Your task to perform on an android device: Go to CNN.com Image 0: 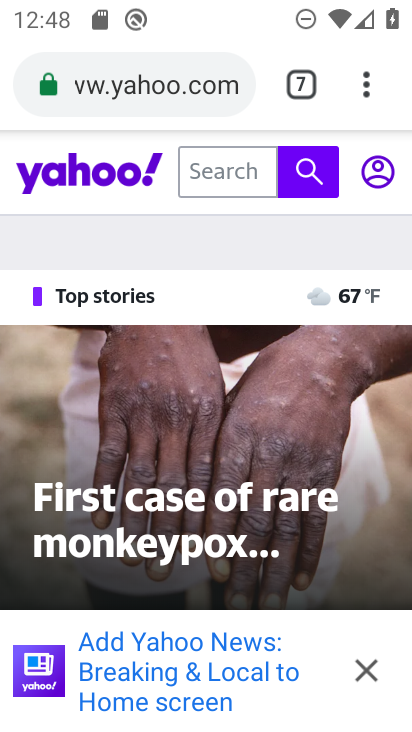
Step 0: click (299, 95)
Your task to perform on an android device: Go to CNN.com Image 1: 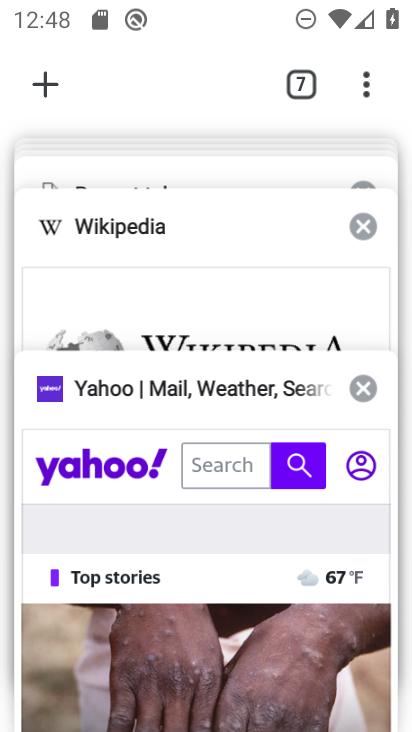
Step 1: click (43, 74)
Your task to perform on an android device: Go to CNN.com Image 2: 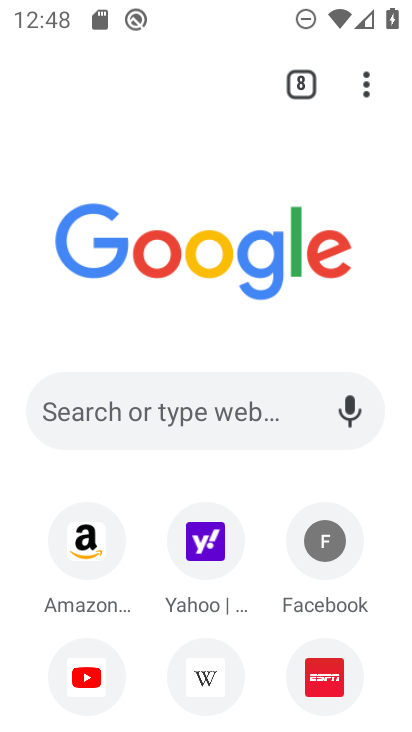
Step 2: click (204, 397)
Your task to perform on an android device: Go to CNN.com Image 3: 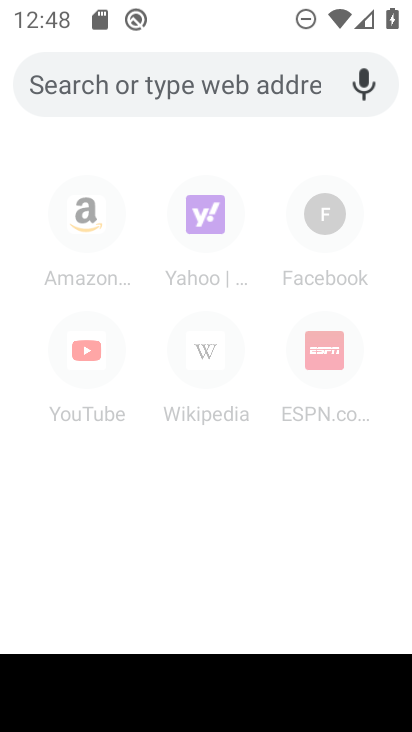
Step 3: type "CNN.com"
Your task to perform on an android device: Go to CNN.com Image 4: 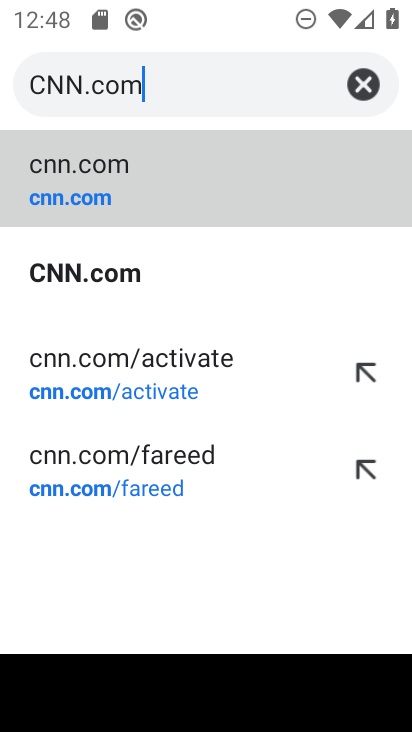
Step 4: click (82, 188)
Your task to perform on an android device: Go to CNN.com Image 5: 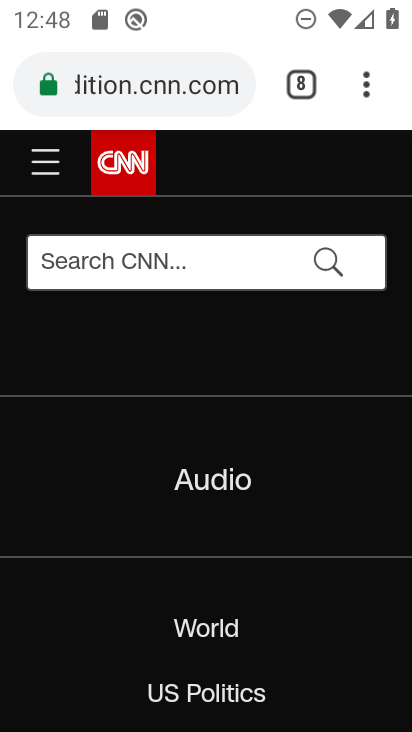
Step 5: task complete